Your task to perform on an android device: Add duracell triple a to the cart on walmart, then select checkout. Image 0: 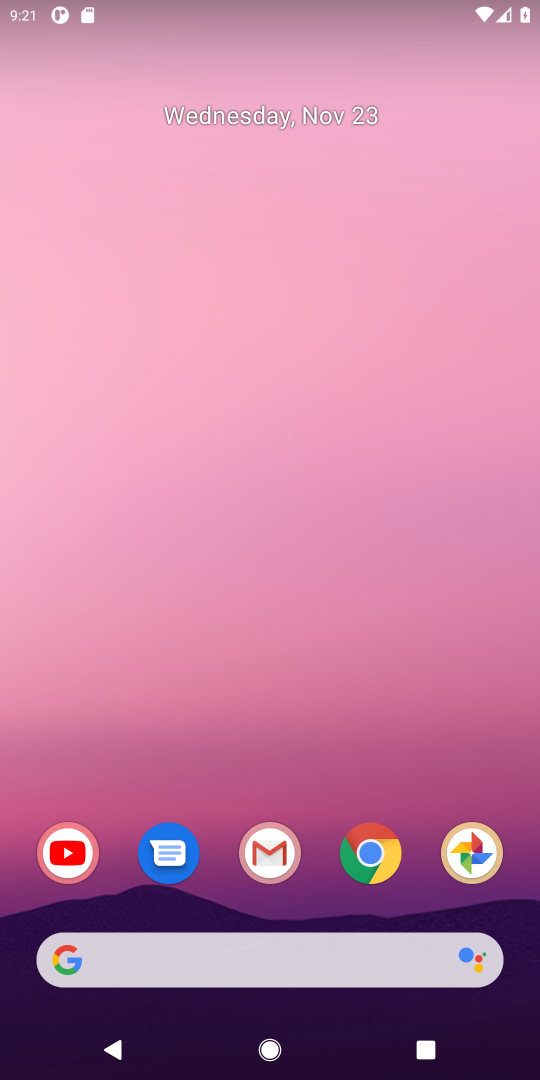
Step 0: click (371, 850)
Your task to perform on an android device: Add duracell triple a to the cart on walmart, then select checkout. Image 1: 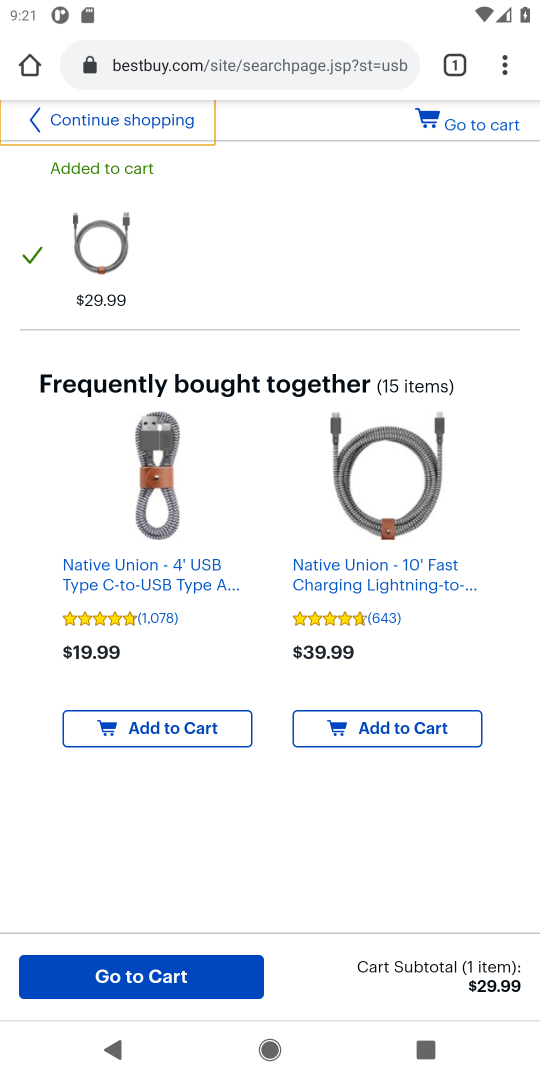
Step 1: click (232, 71)
Your task to perform on an android device: Add duracell triple a to the cart on walmart, then select checkout. Image 2: 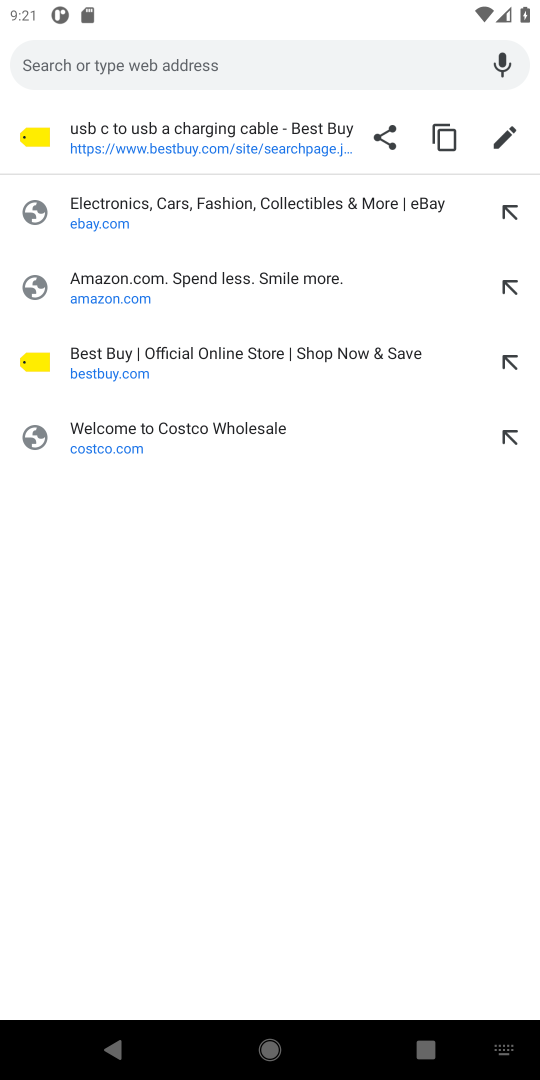
Step 2: type "walmart.com"
Your task to perform on an android device: Add duracell triple a to the cart on walmart, then select checkout. Image 3: 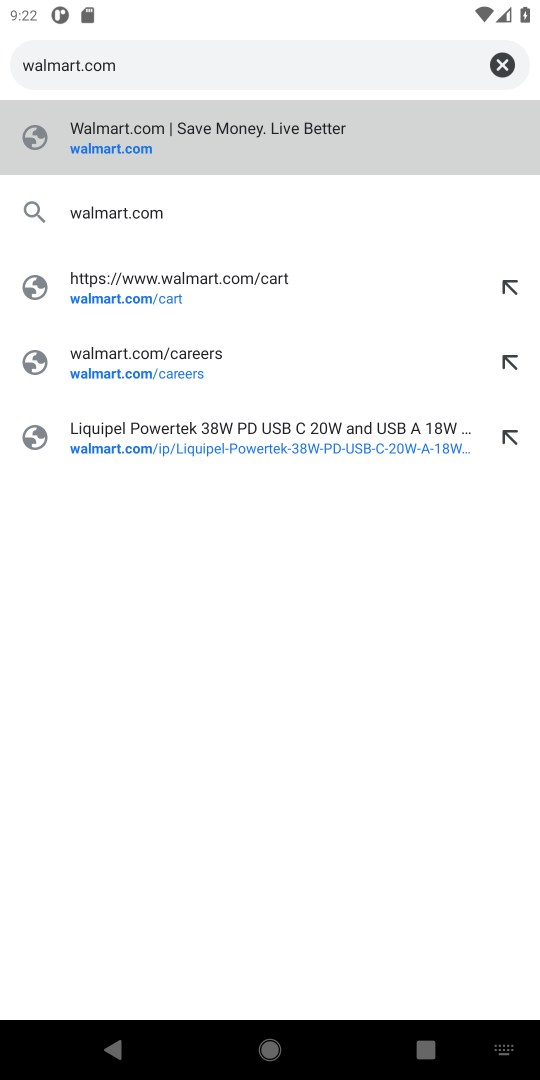
Step 3: click (84, 143)
Your task to perform on an android device: Add duracell triple a to the cart on walmart, then select checkout. Image 4: 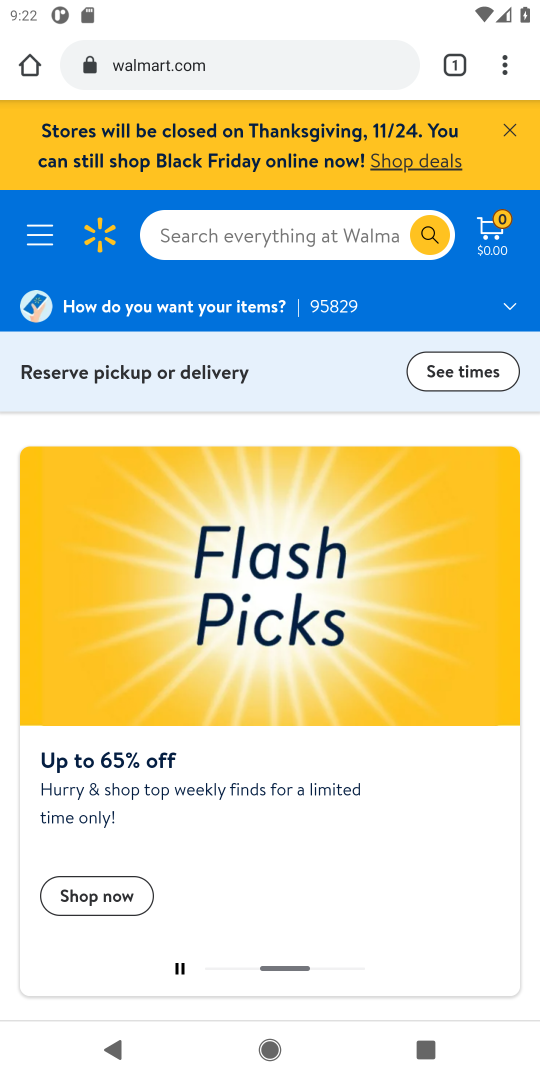
Step 4: click (202, 237)
Your task to perform on an android device: Add duracell triple a to the cart on walmart, then select checkout. Image 5: 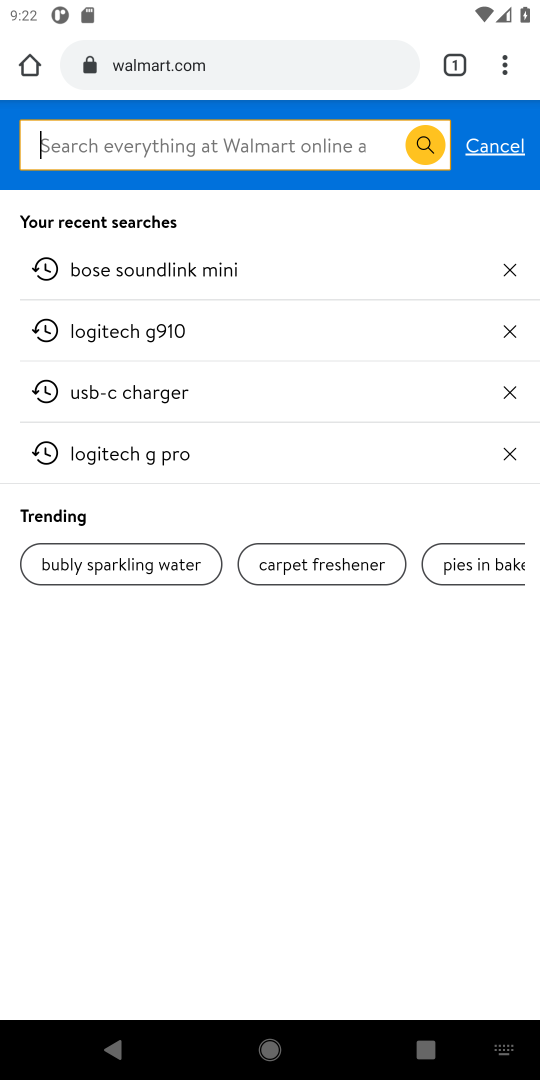
Step 5: type "duracell triple a"
Your task to perform on an android device: Add duracell triple a to the cart on walmart, then select checkout. Image 6: 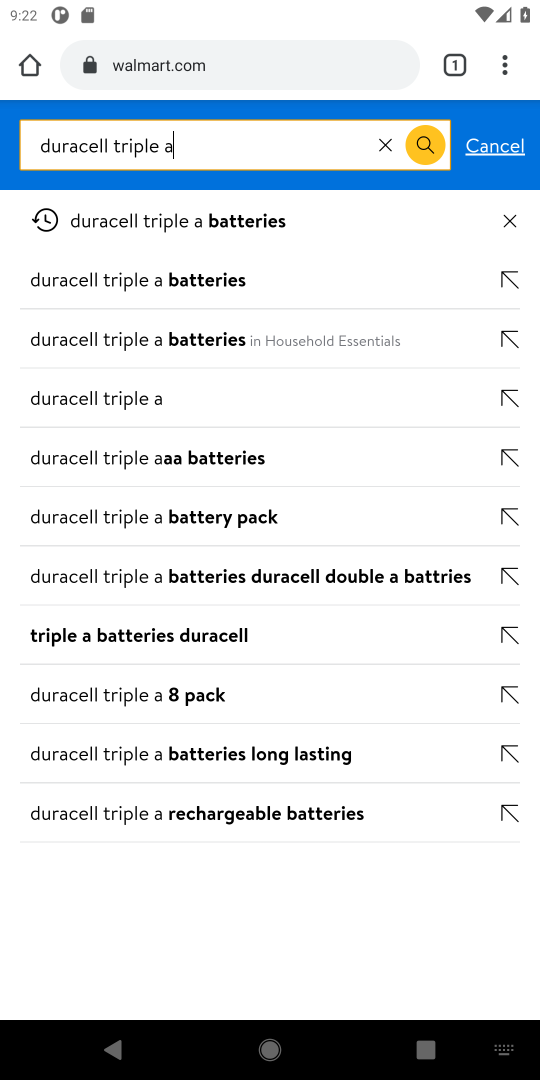
Step 6: click (195, 233)
Your task to perform on an android device: Add duracell triple a to the cart on walmart, then select checkout. Image 7: 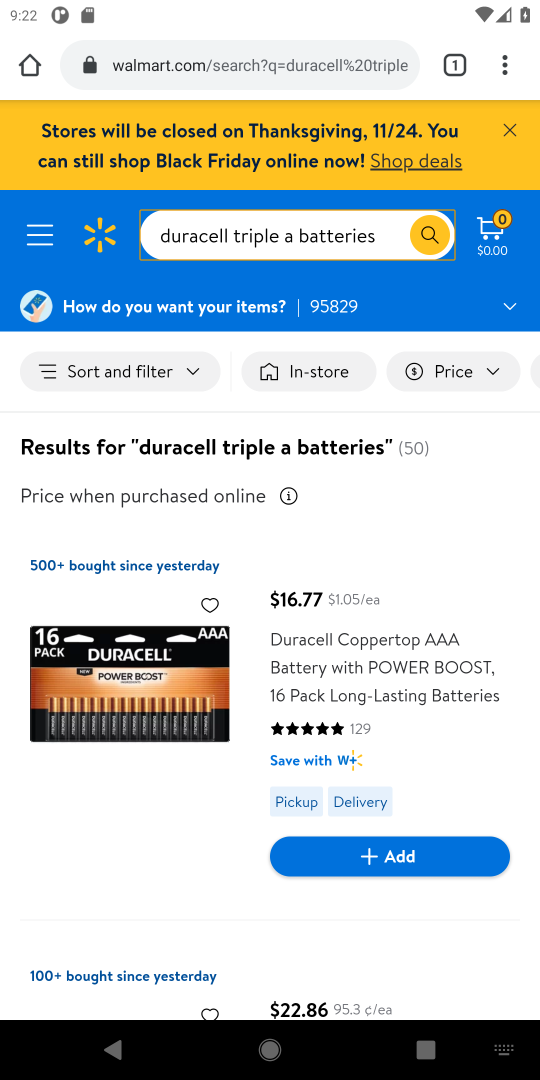
Step 7: drag from (172, 661) to (188, 396)
Your task to perform on an android device: Add duracell triple a to the cart on walmart, then select checkout. Image 8: 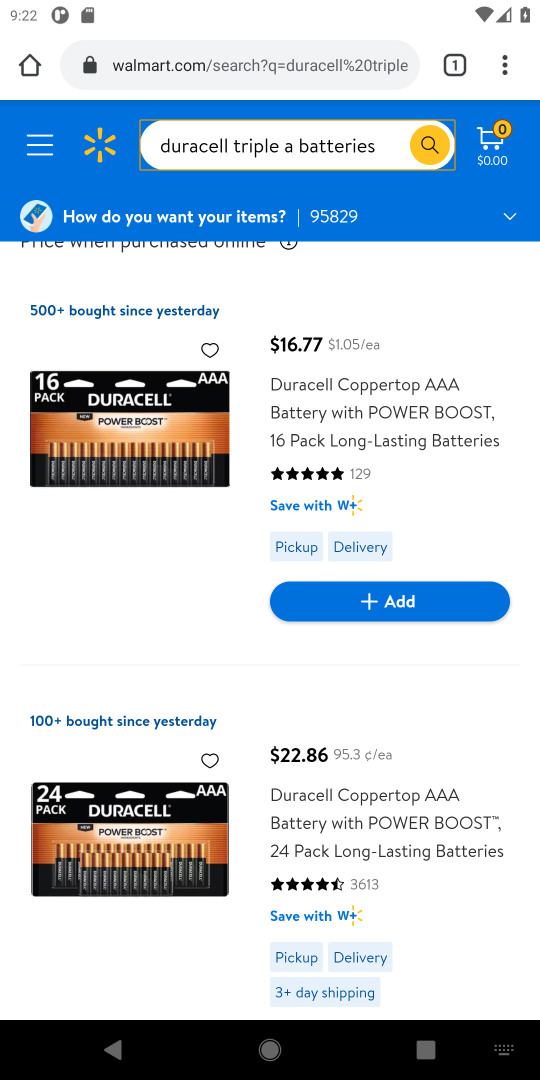
Step 8: click (393, 611)
Your task to perform on an android device: Add duracell triple a to the cart on walmart, then select checkout. Image 9: 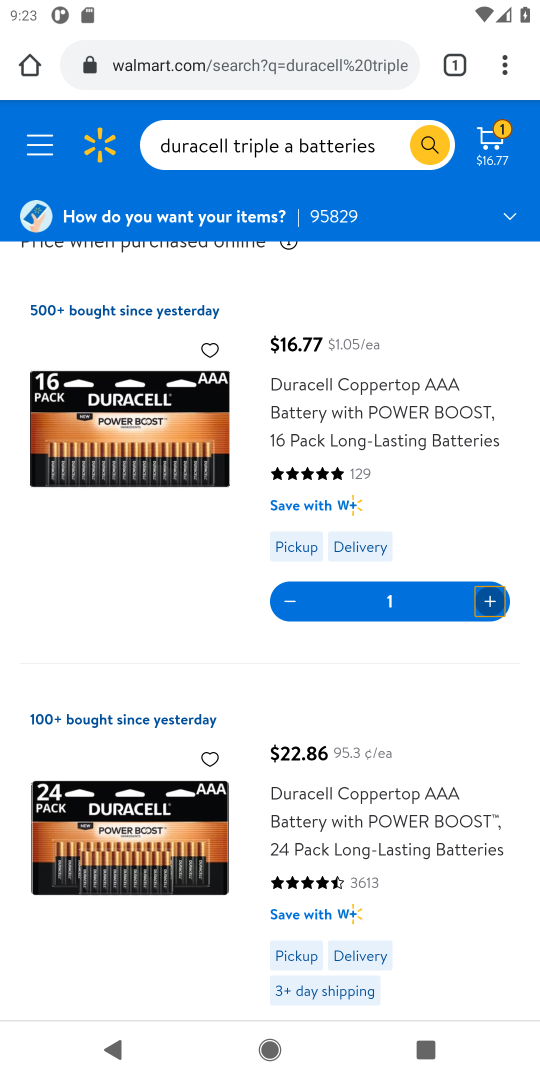
Step 9: click (494, 147)
Your task to perform on an android device: Add duracell triple a to the cart on walmart, then select checkout. Image 10: 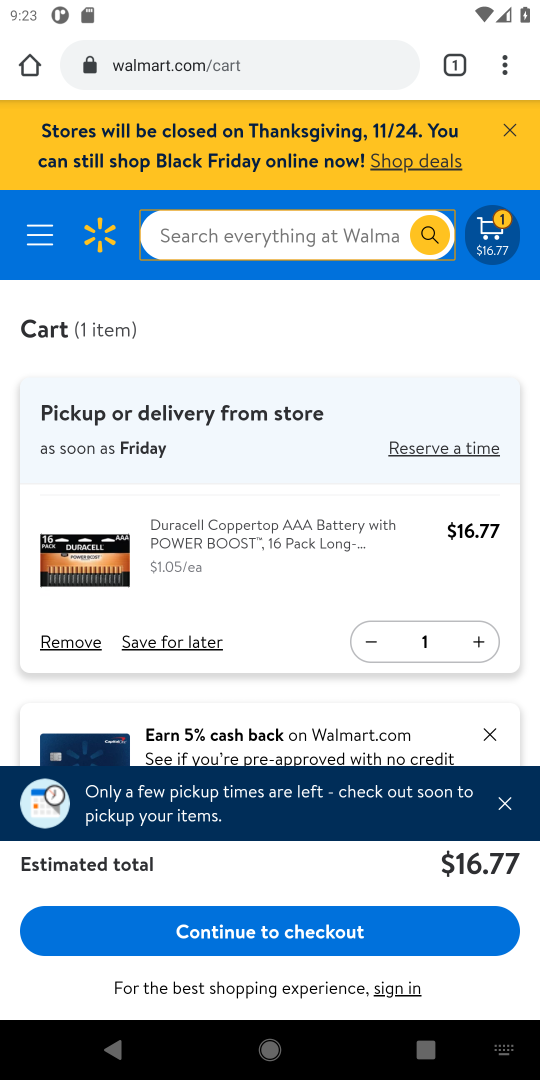
Step 10: click (264, 942)
Your task to perform on an android device: Add duracell triple a to the cart on walmart, then select checkout. Image 11: 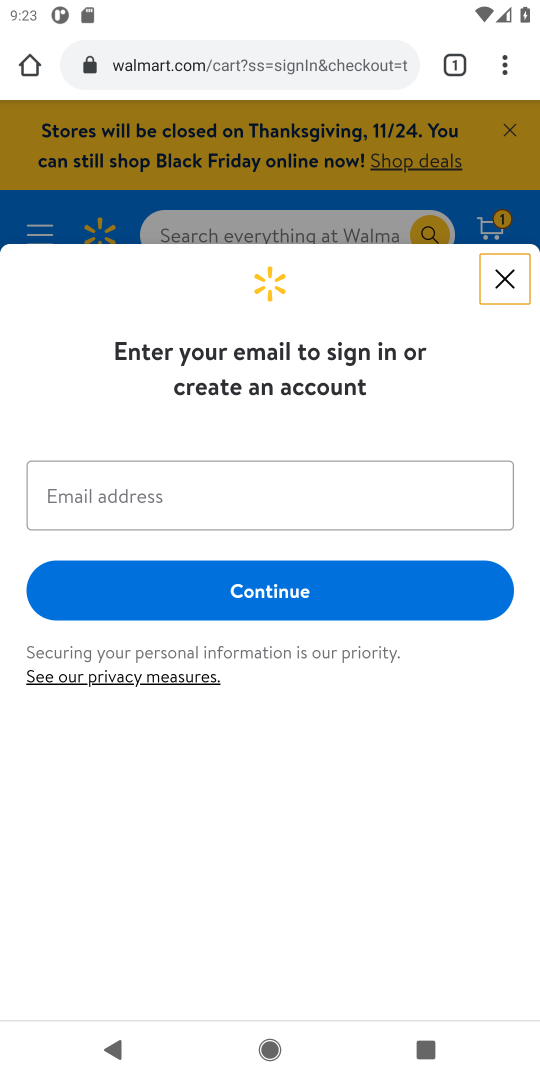
Step 11: task complete